Your task to perform on an android device: Go to network settings Image 0: 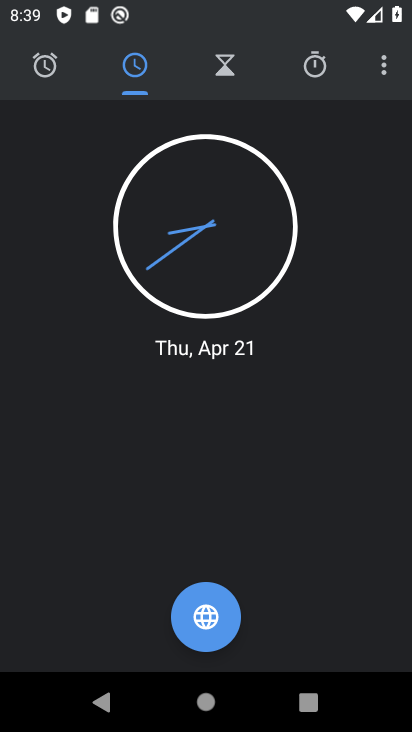
Step 0: press home button
Your task to perform on an android device: Go to network settings Image 1: 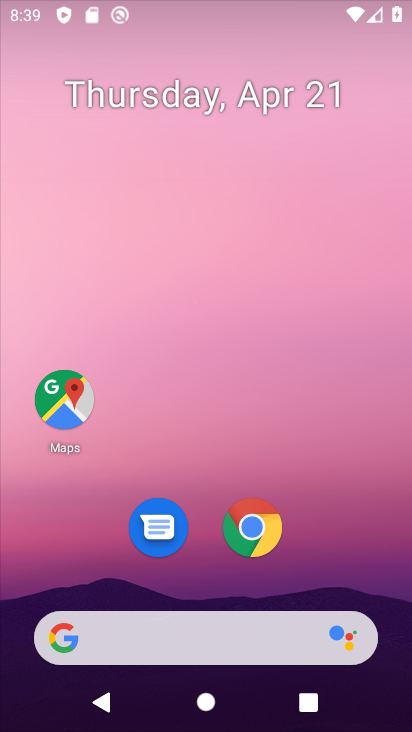
Step 1: drag from (268, 598) to (310, 259)
Your task to perform on an android device: Go to network settings Image 2: 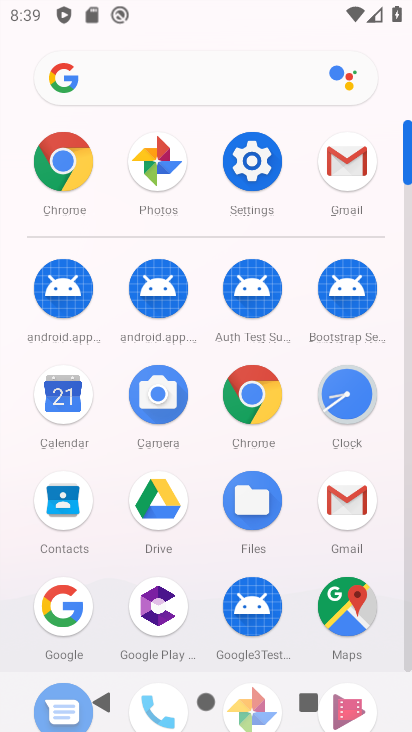
Step 2: click (266, 164)
Your task to perform on an android device: Go to network settings Image 3: 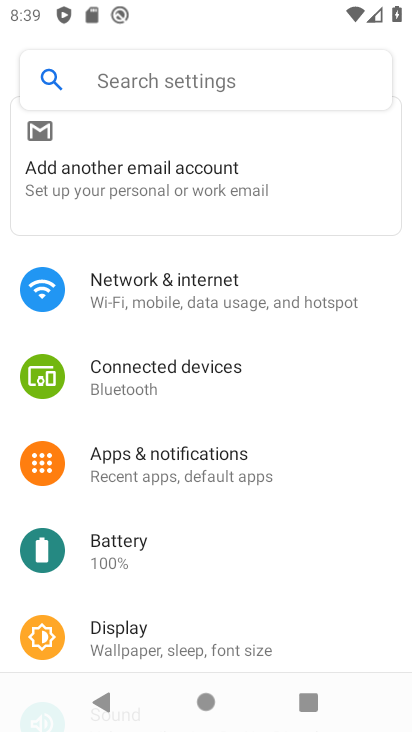
Step 3: click (341, 283)
Your task to perform on an android device: Go to network settings Image 4: 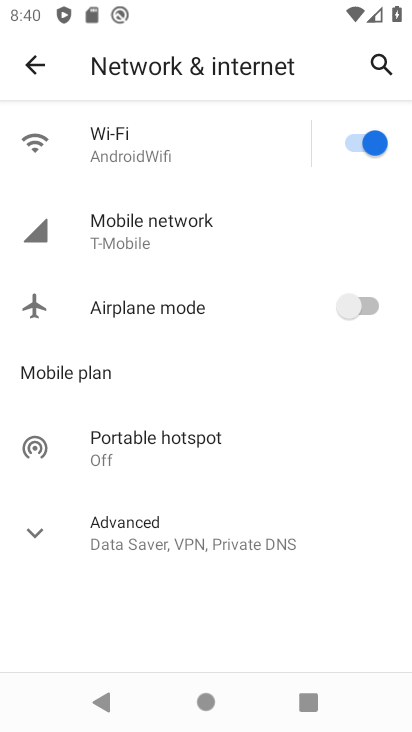
Step 4: click (226, 242)
Your task to perform on an android device: Go to network settings Image 5: 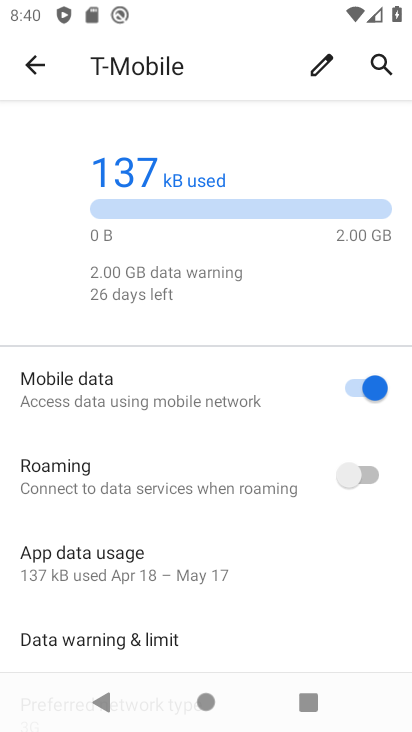
Step 5: task complete